Your task to perform on an android device: check data usage Image 0: 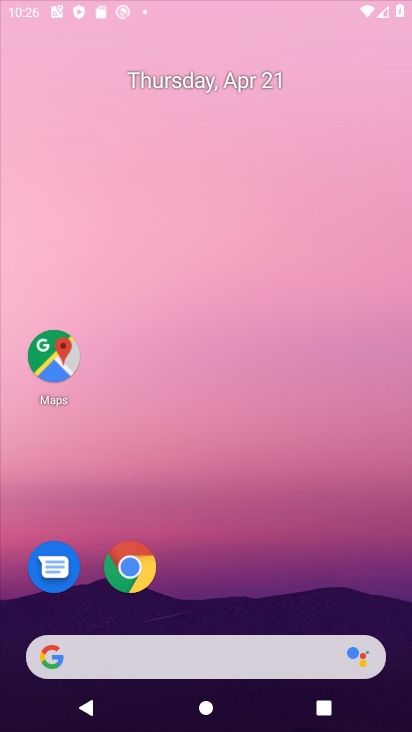
Step 0: click (368, 133)
Your task to perform on an android device: check data usage Image 1: 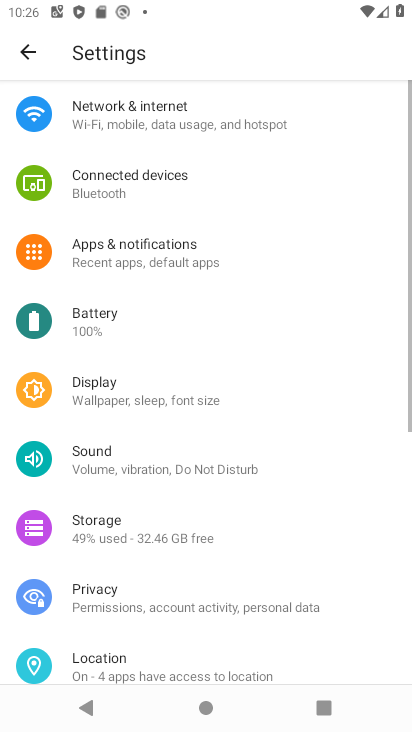
Step 1: press home button
Your task to perform on an android device: check data usage Image 2: 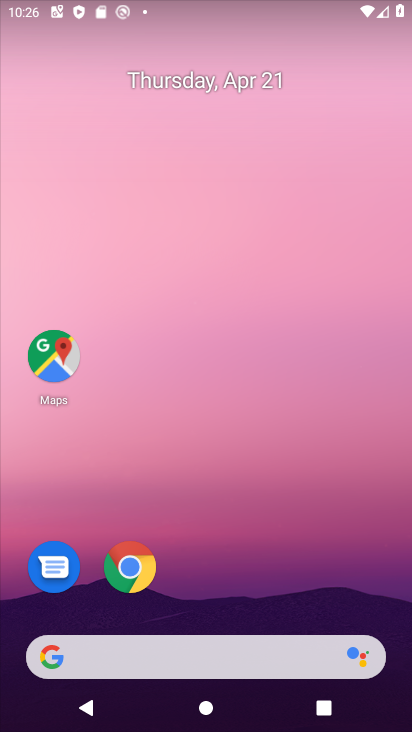
Step 2: drag from (201, 605) to (270, 160)
Your task to perform on an android device: check data usage Image 3: 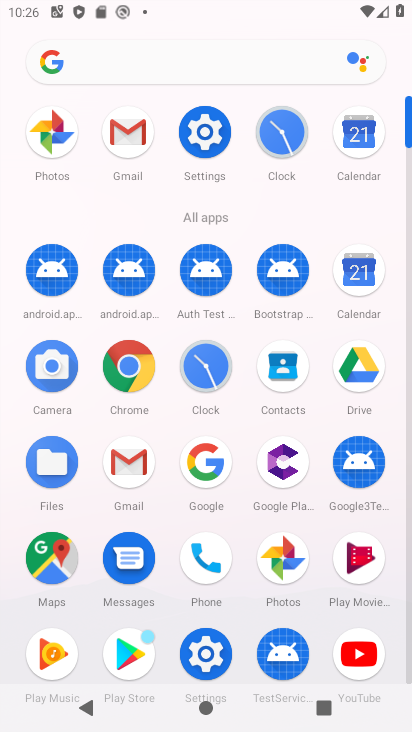
Step 3: click (211, 642)
Your task to perform on an android device: check data usage Image 4: 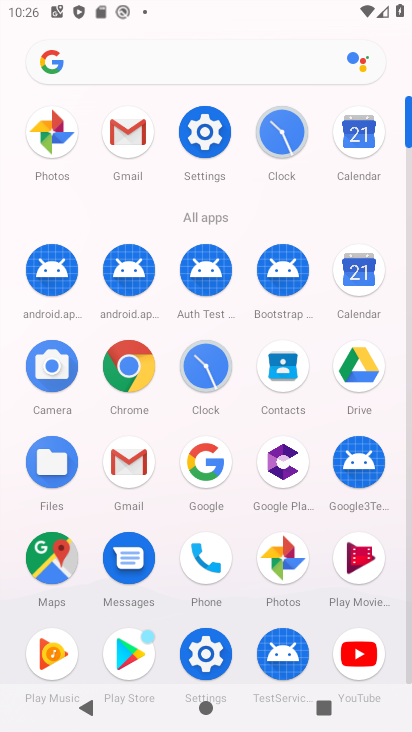
Step 4: click (211, 642)
Your task to perform on an android device: check data usage Image 5: 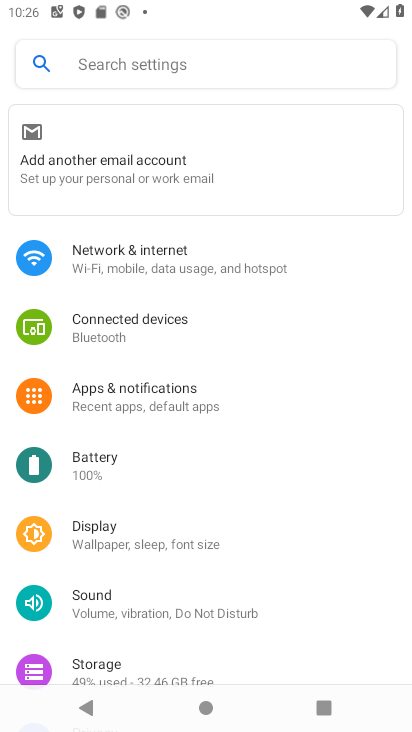
Step 5: click (151, 260)
Your task to perform on an android device: check data usage Image 6: 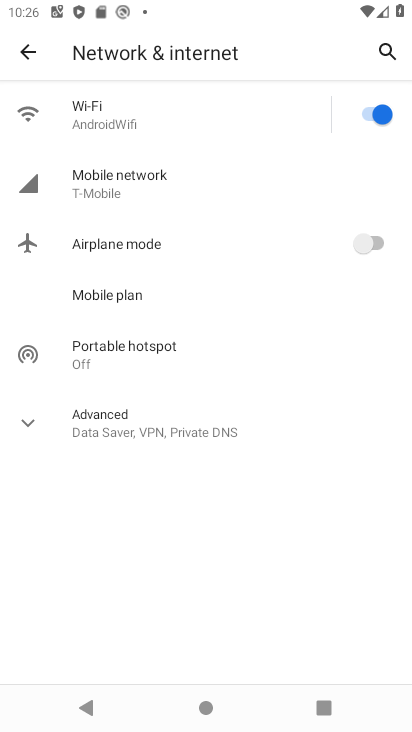
Step 6: click (129, 182)
Your task to perform on an android device: check data usage Image 7: 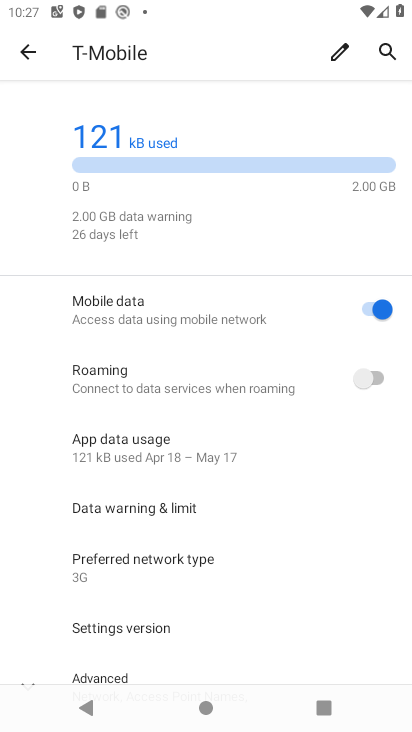
Step 7: click (129, 447)
Your task to perform on an android device: check data usage Image 8: 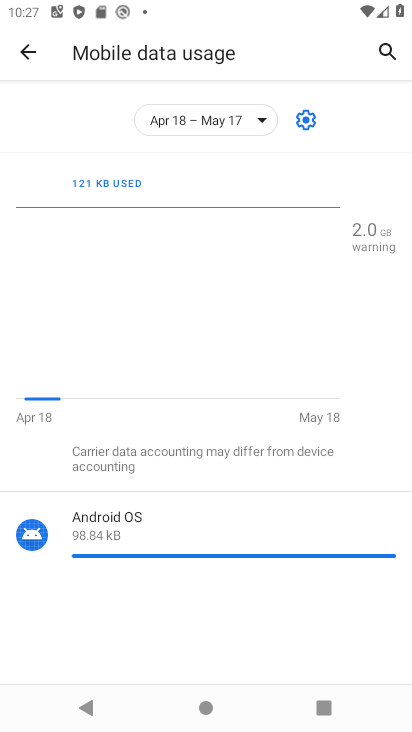
Step 8: task complete